Your task to perform on an android device: turn off wifi Image 0: 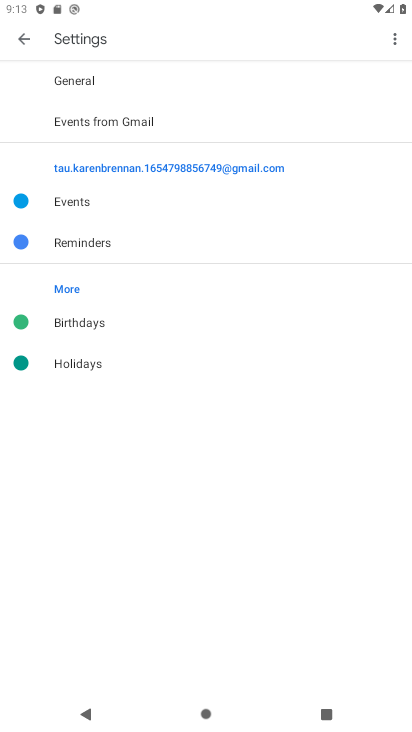
Step 0: press home button
Your task to perform on an android device: turn off wifi Image 1: 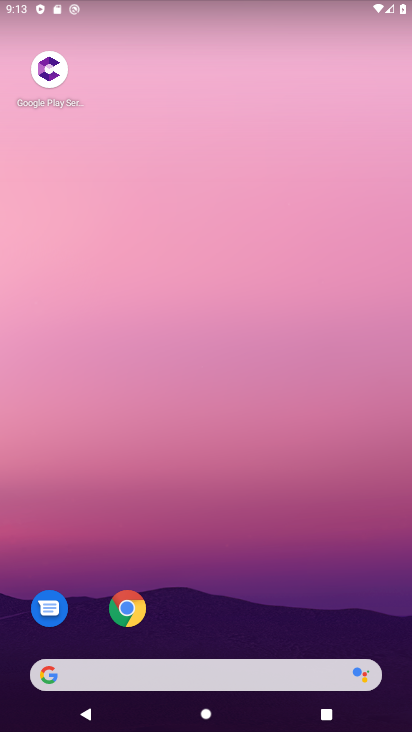
Step 1: drag from (256, 349) to (292, 77)
Your task to perform on an android device: turn off wifi Image 2: 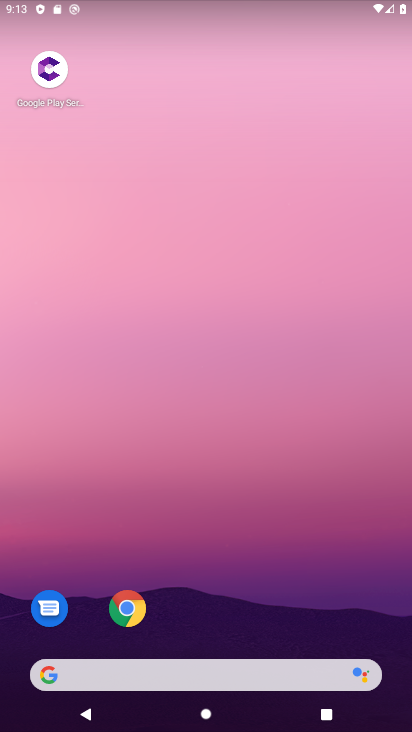
Step 2: drag from (212, 650) to (336, 9)
Your task to perform on an android device: turn off wifi Image 3: 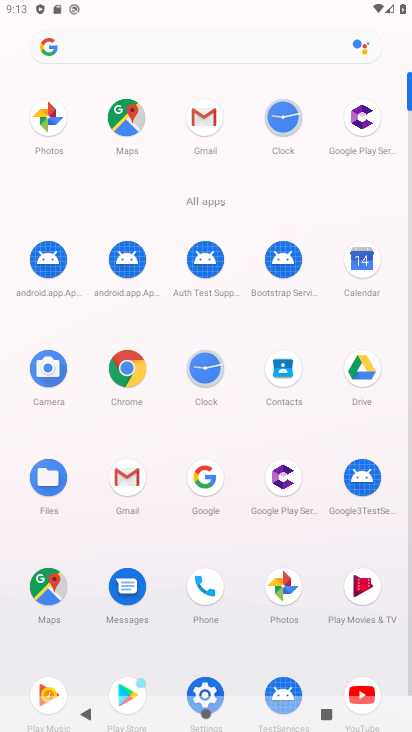
Step 3: click (204, 682)
Your task to perform on an android device: turn off wifi Image 4: 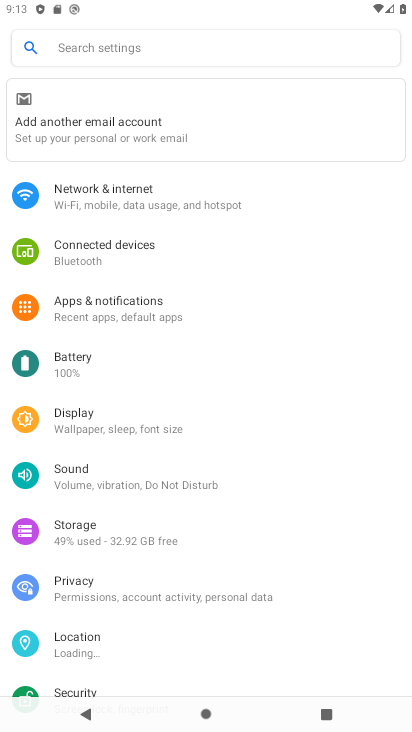
Step 4: click (207, 195)
Your task to perform on an android device: turn off wifi Image 5: 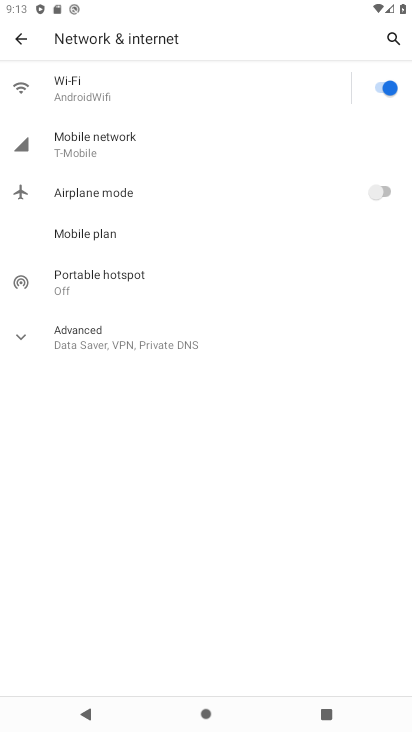
Step 5: click (377, 88)
Your task to perform on an android device: turn off wifi Image 6: 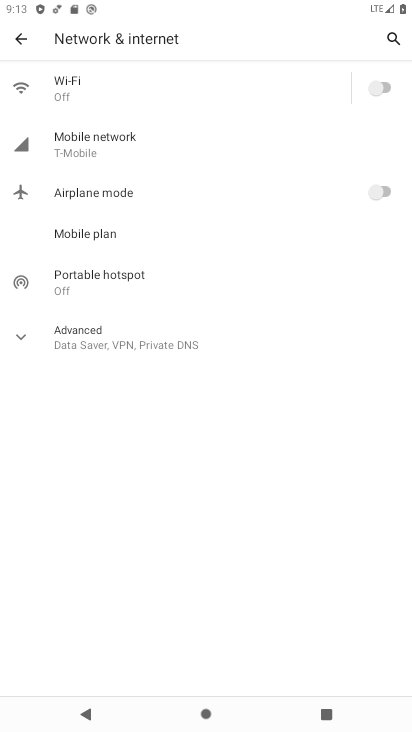
Step 6: task complete